Your task to perform on an android device: see sites visited before in the chrome app Image 0: 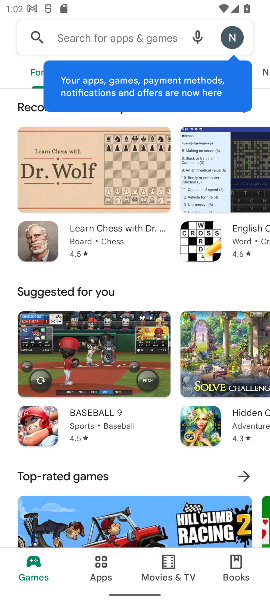
Step 0: press home button
Your task to perform on an android device: see sites visited before in the chrome app Image 1: 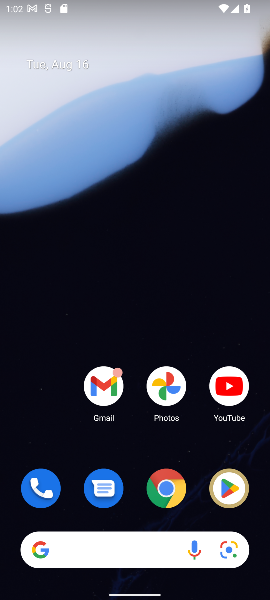
Step 1: click (161, 483)
Your task to perform on an android device: see sites visited before in the chrome app Image 2: 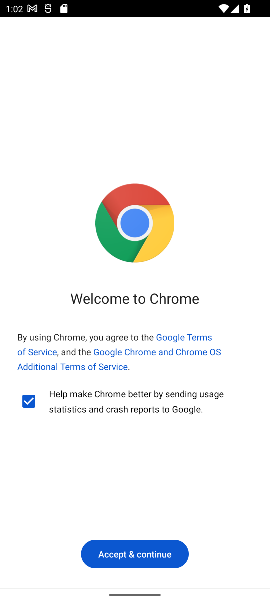
Step 2: click (134, 547)
Your task to perform on an android device: see sites visited before in the chrome app Image 3: 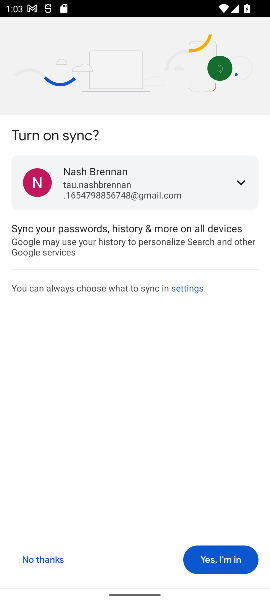
Step 3: click (213, 563)
Your task to perform on an android device: see sites visited before in the chrome app Image 4: 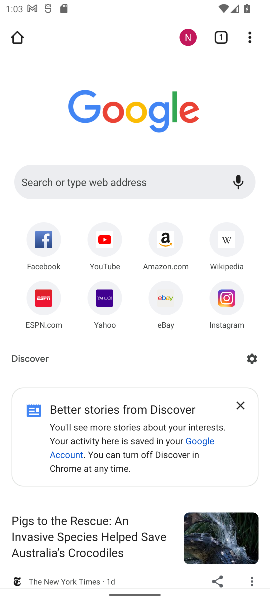
Step 4: task complete